Your task to perform on an android device: Go to network settings Image 0: 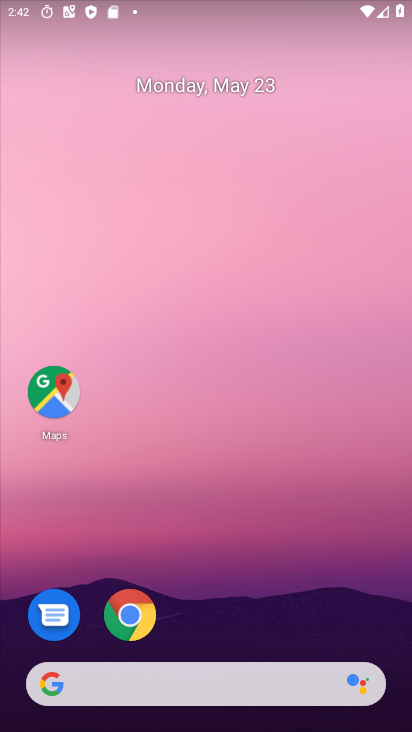
Step 0: drag from (268, 644) to (294, 14)
Your task to perform on an android device: Go to network settings Image 1: 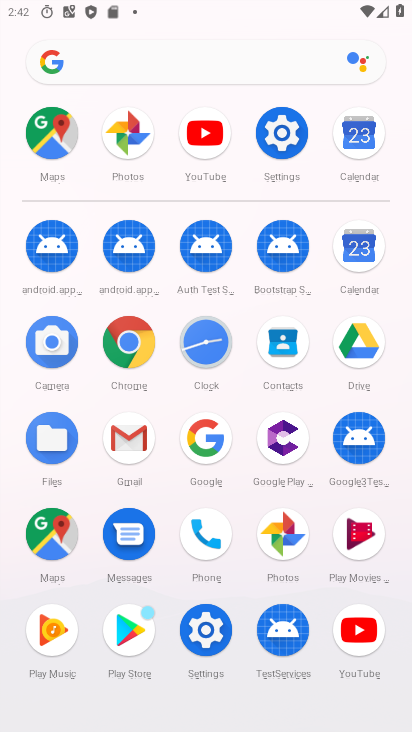
Step 1: click (280, 131)
Your task to perform on an android device: Go to network settings Image 2: 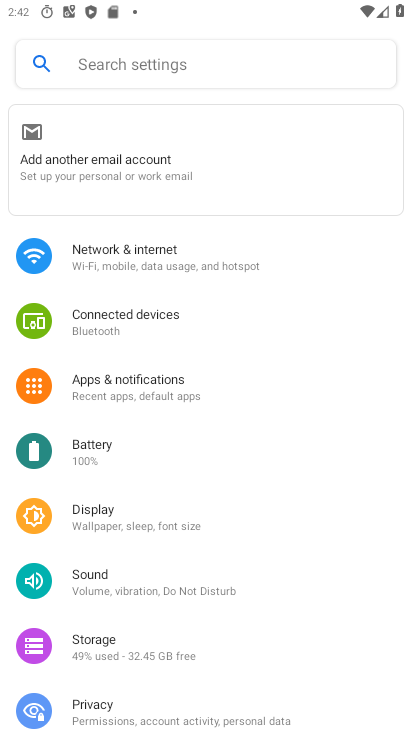
Step 2: click (96, 269)
Your task to perform on an android device: Go to network settings Image 3: 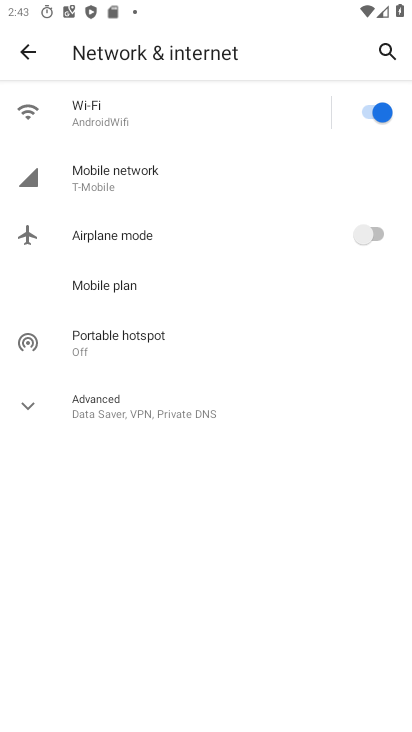
Step 3: click (122, 179)
Your task to perform on an android device: Go to network settings Image 4: 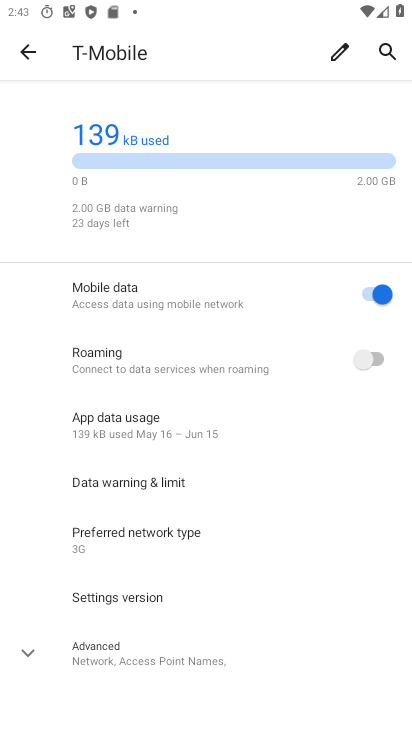
Step 4: drag from (183, 614) to (193, 386)
Your task to perform on an android device: Go to network settings Image 5: 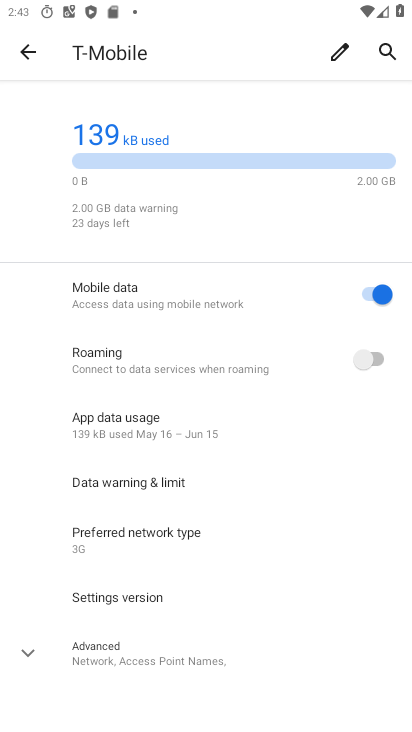
Step 5: click (33, 655)
Your task to perform on an android device: Go to network settings Image 6: 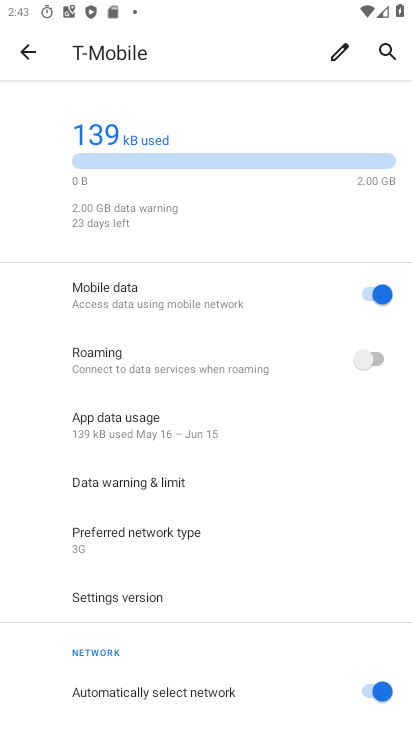
Step 6: task complete